Your task to perform on an android device: Open Wikipedia Image 0: 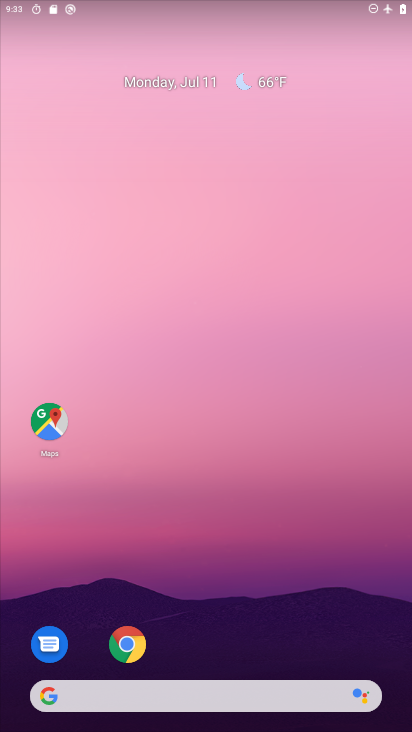
Step 0: drag from (238, 647) to (223, 187)
Your task to perform on an android device: Open Wikipedia Image 1: 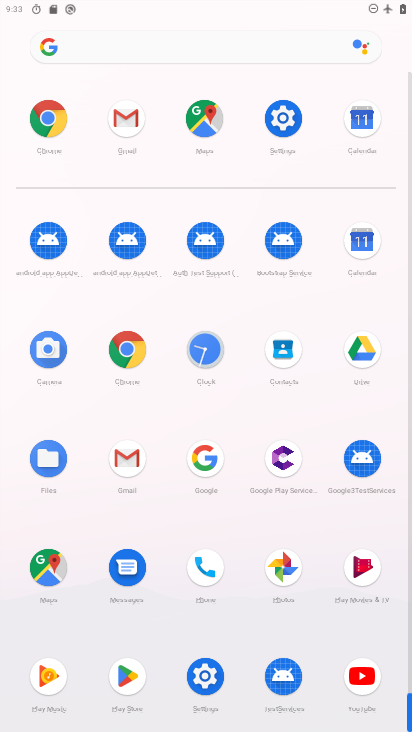
Step 1: click (123, 348)
Your task to perform on an android device: Open Wikipedia Image 2: 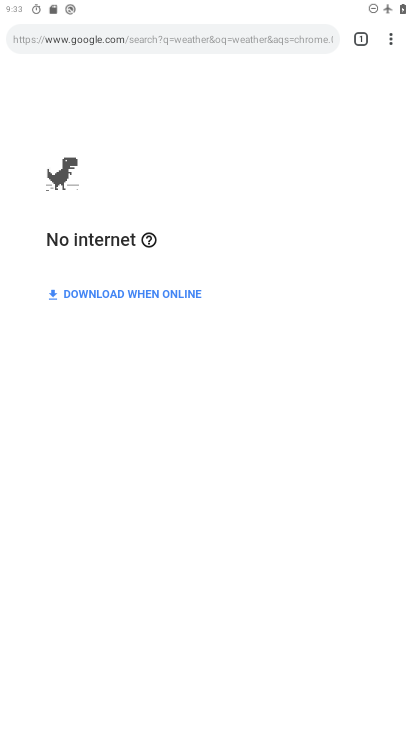
Step 2: click (182, 40)
Your task to perform on an android device: Open Wikipedia Image 3: 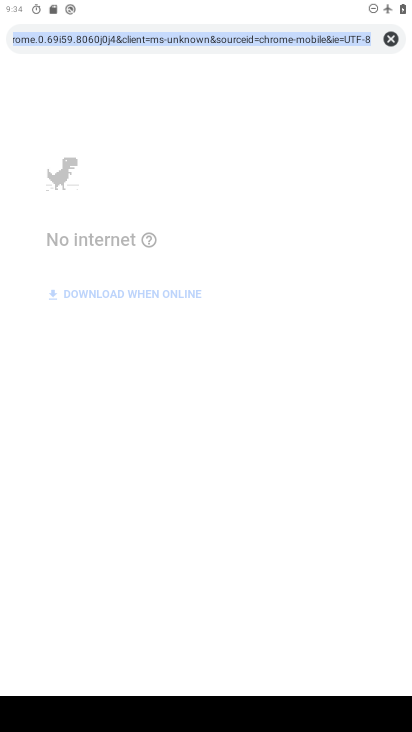
Step 3: type "wikipedia"
Your task to perform on an android device: Open Wikipedia Image 4: 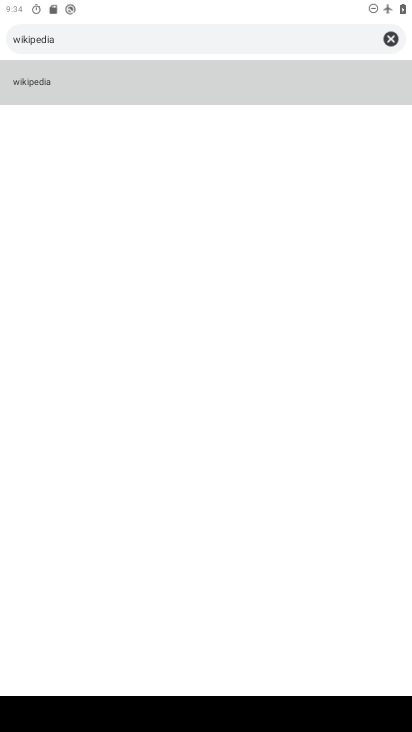
Step 4: click (45, 78)
Your task to perform on an android device: Open Wikipedia Image 5: 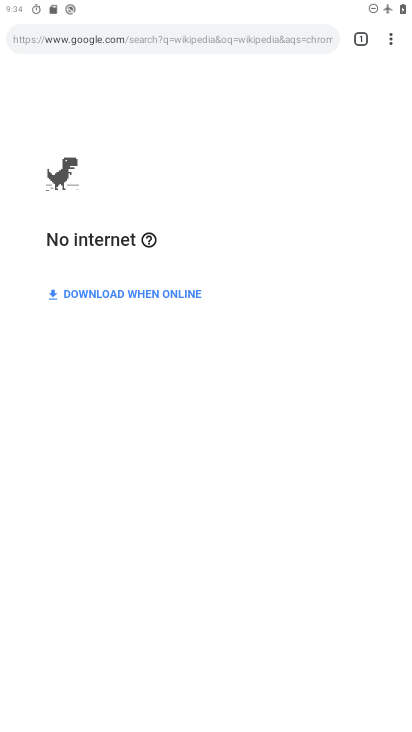
Step 5: task complete